Your task to perform on an android device: Open the Play Movies app and select the watchlist tab. Image 0: 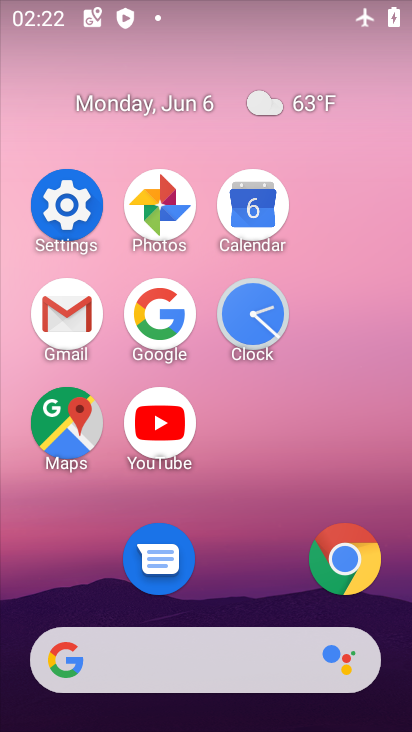
Step 0: drag from (288, 365) to (312, 167)
Your task to perform on an android device: Open the Play Movies app and select the watchlist tab. Image 1: 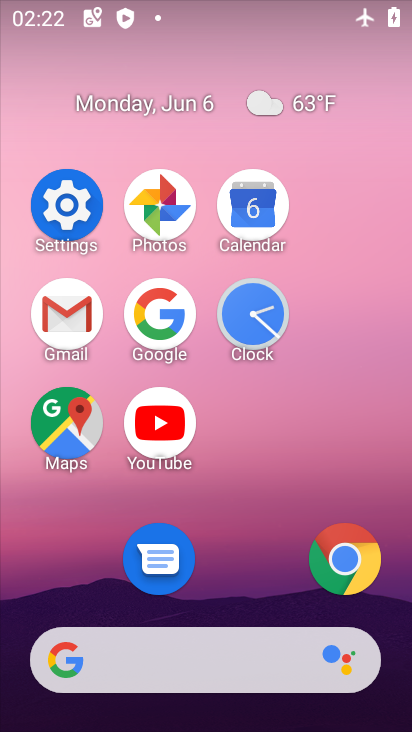
Step 1: drag from (207, 561) to (308, 164)
Your task to perform on an android device: Open the Play Movies app and select the watchlist tab. Image 2: 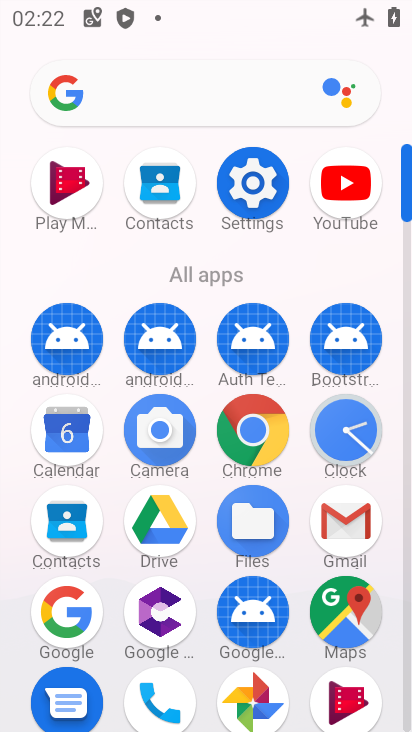
Step 2: drag from (207, 535) to (293, 198)
Your task to perform on an android device: Open the Play Movies app and select the watchlist tab. Image 3: 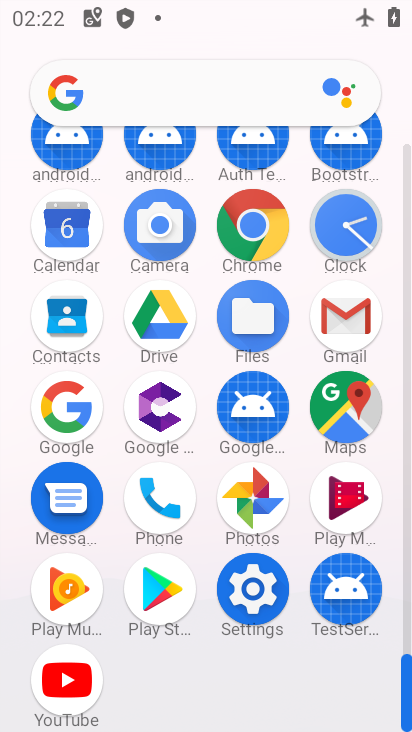
Step 3: click (340, 514)
Your task to perform on an android device: Open the Play Movies app and select the watchlist tab. Image 4: 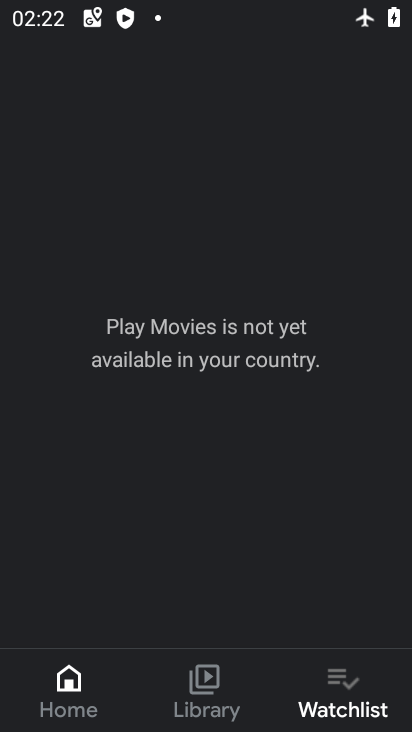
Step 4: click (323, 696)
Your task to perform on an android device: Open the Play Movies app and select the watchlist tab. Image 5: 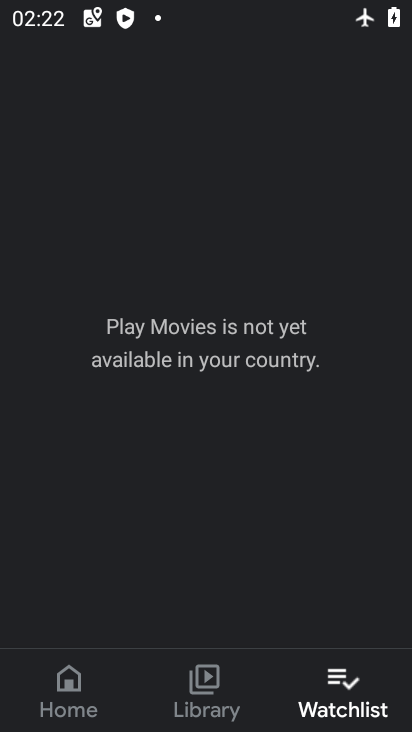
Step 5: task complete